Your task to perform on an android device: Go to notification settings Image 0: 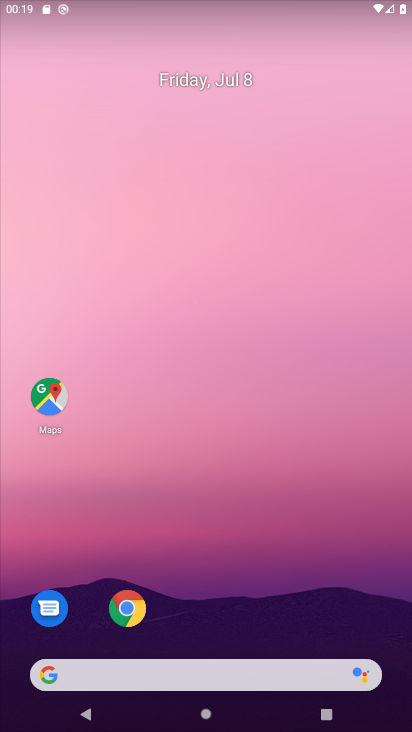
Step 0: drag from (303, 561) to (286, 306)
Your task to perform on an android device: Go to notification settings Image 1: 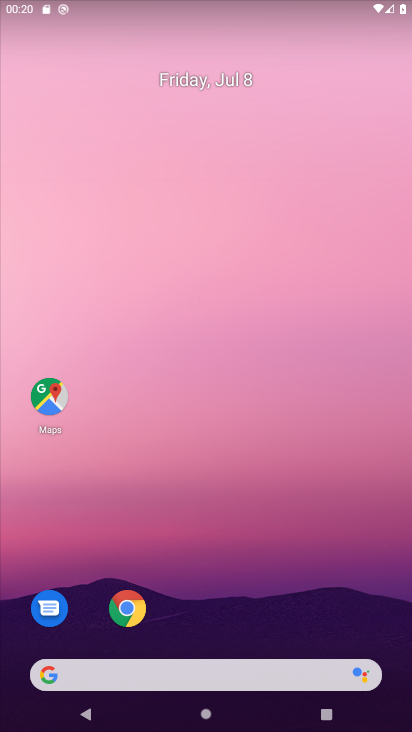
Step 1: drag from (242, 654) to (222, 185)
Your task to perform on an android device: Go to notification settings Image 2: 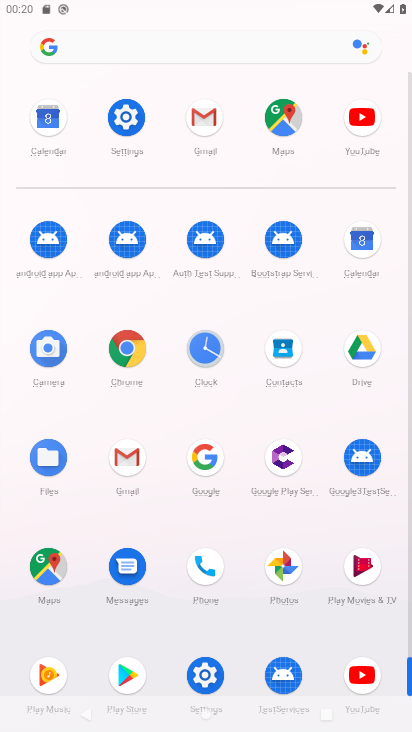
Step 2: click (108, 123)
Your task to perform on an android device: Go to notification settings Image 3: 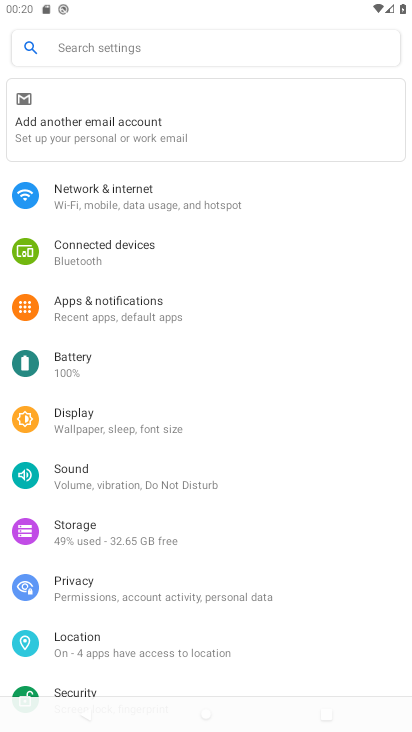
Step 3: click (110, 309)
Your task to perform on an android device: Go to notification settings Image 4: 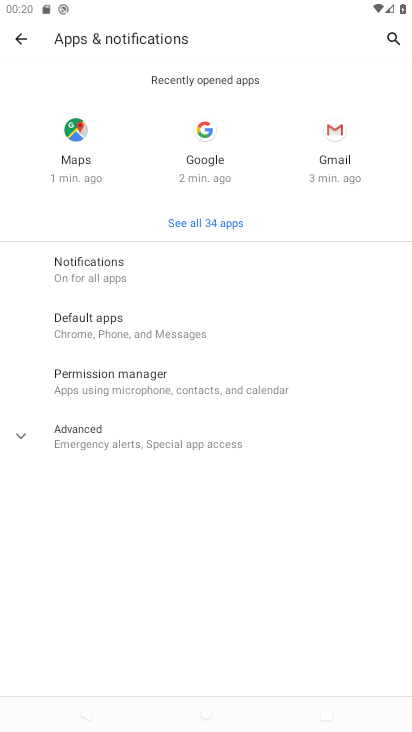
Step 4: click (166, 262)
Your task to perform on an android device: Go to notification settings Image 5: 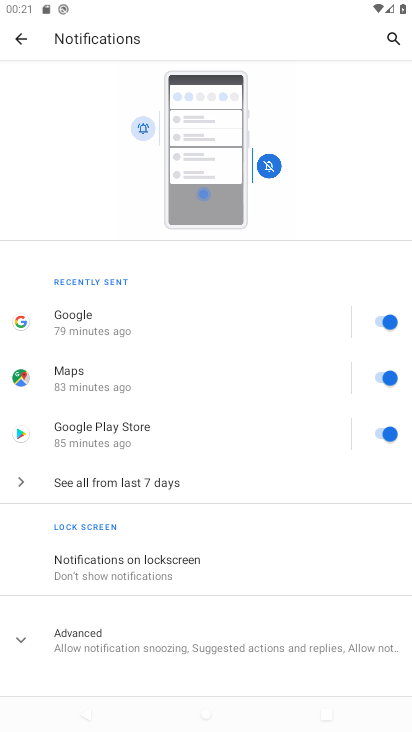
Step 5: task complete